Your task to perform on an android device: Search for vegetarian restaurants on Maps Image 0: 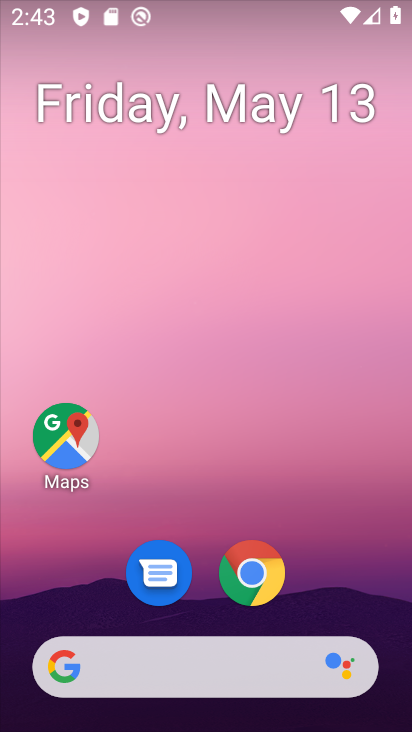
Step 0: click (54, 447)
Your task to perform on an android device: Search for vegetarian restaurants on Maps Image 1: 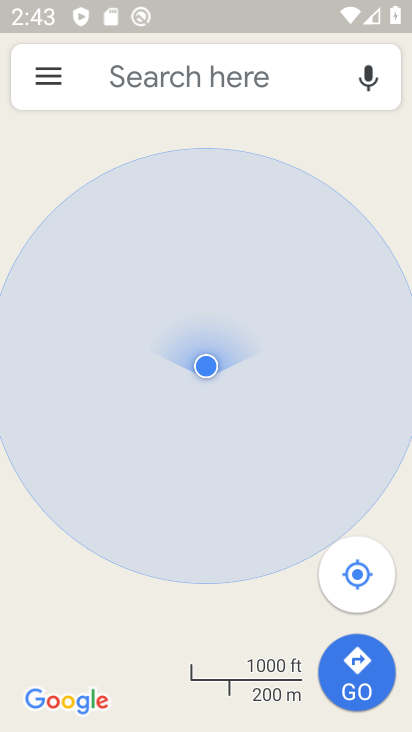
Step 1: click (220, 90)
Your task to perform on an android device: Search for vegetarian restaurants on Maps Image 2: 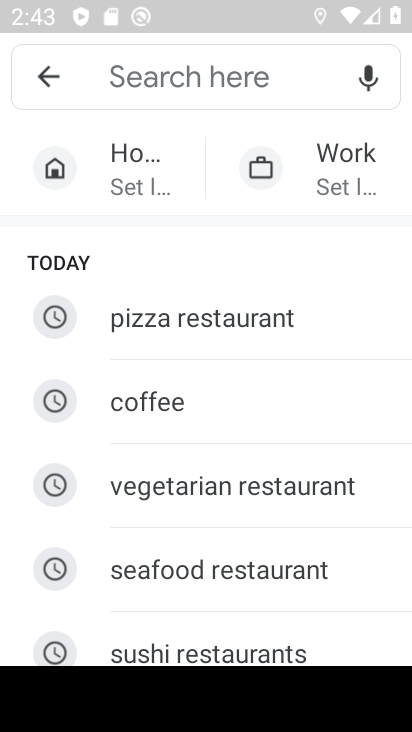
Step 2: type "vegetarian restaurants"
Your task to perform on an android device: Search for vegetarian restaurants on Maps Image 3: 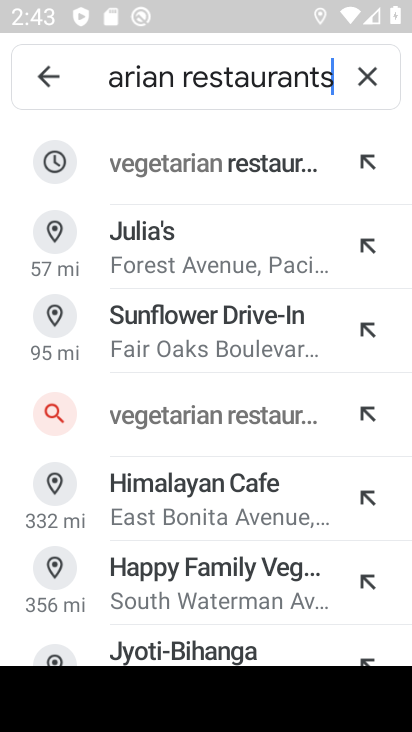
Step 3: click (168, 183)
Your task to perform on an android device: Search for vegetarian restaurants on Maps Image 4: 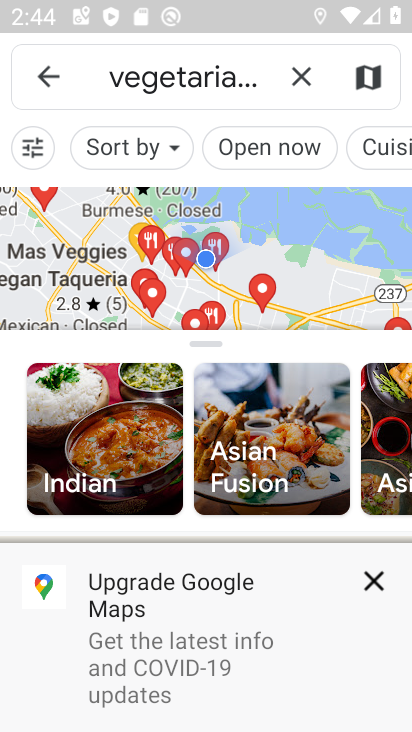
Step 4: click (375, 580)
Your task to perform on an android device: Search for vegetarian restaurants on Maps Image 5: 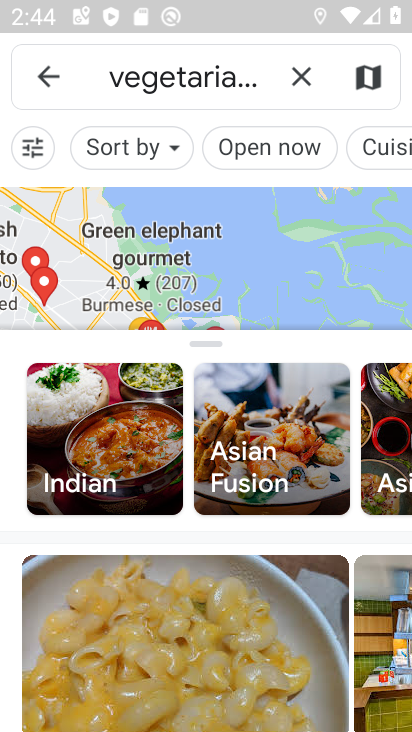
Step 5: task complete